Your task to perform on an android device: turn notification dots on Image 0: 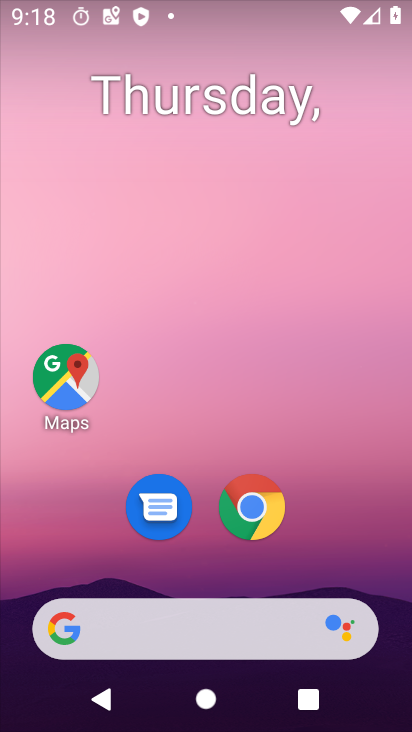
Step 0: drag from (199, 589) to (238, 7)
Your task to perform on an android device: turn notification dots on Image 1: 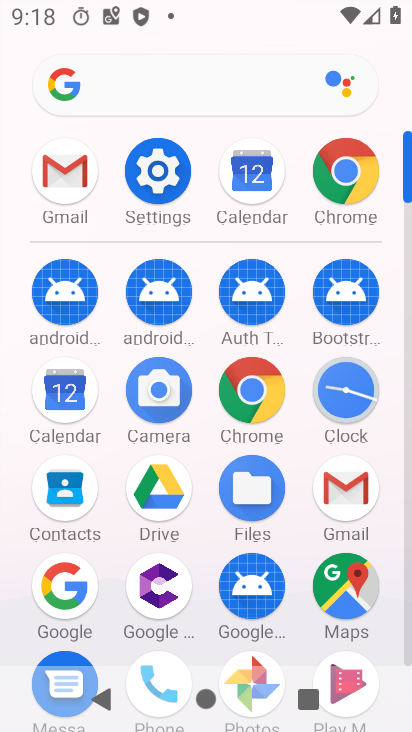
Step 1: click (143, 192)
Your task to perform on an android device: turn notification dots on Image 2: 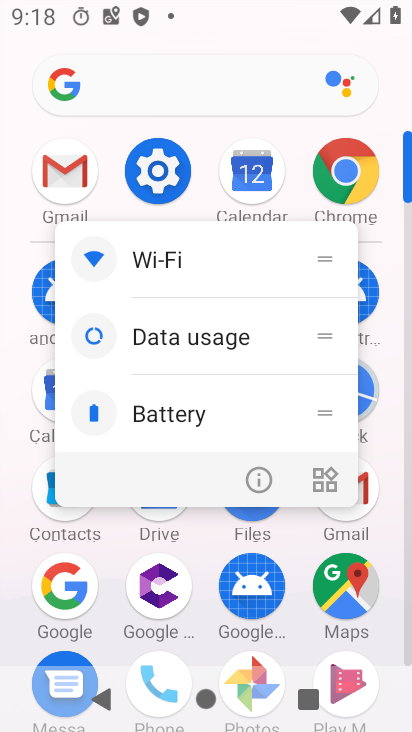
Step 2: click (174, 180)
Your task to perform on an android device: turn notification dots on Image 3: 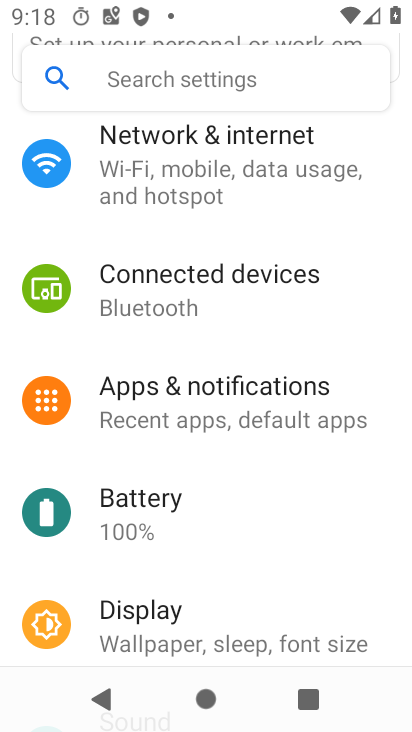
Step 3: click (212, 388)
Your task to perform on an android device: turn notification dots on Image 4: 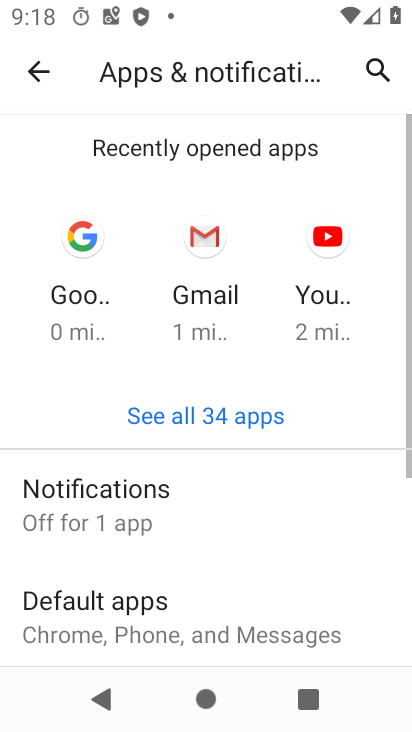
Step 4: drag from (195, 527) to (232, 188)
Your task to perform on an android device: turn notification dots on Image 5: 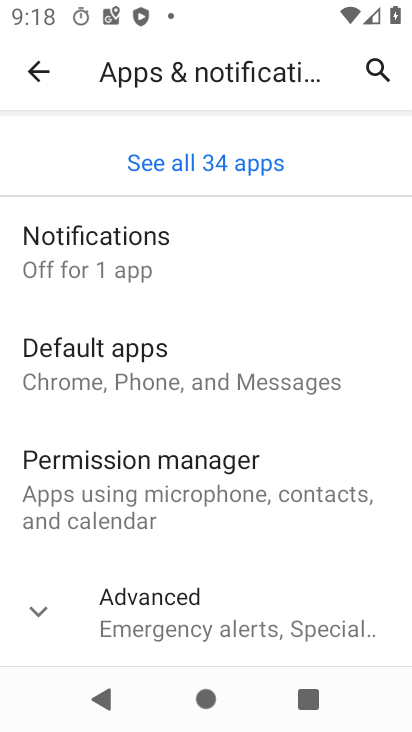
Step 5: click (127, 274)
Your task to perform on an android device: turn notification dots on Image 6: 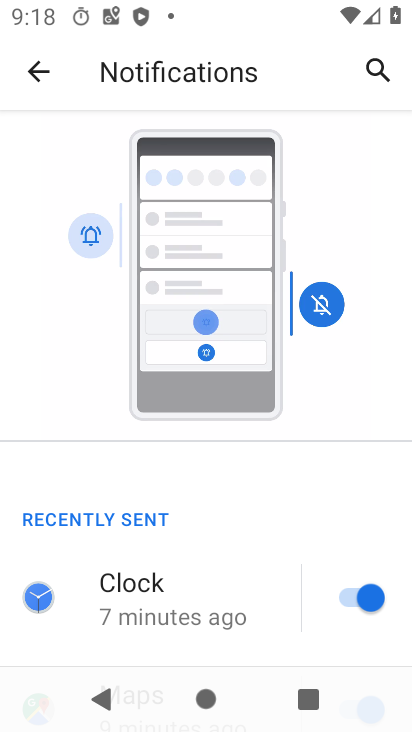
Step 6: drag from (252, 535) to (252, 191)
Your task to perform on an android device: turn notification dots on Image 7: 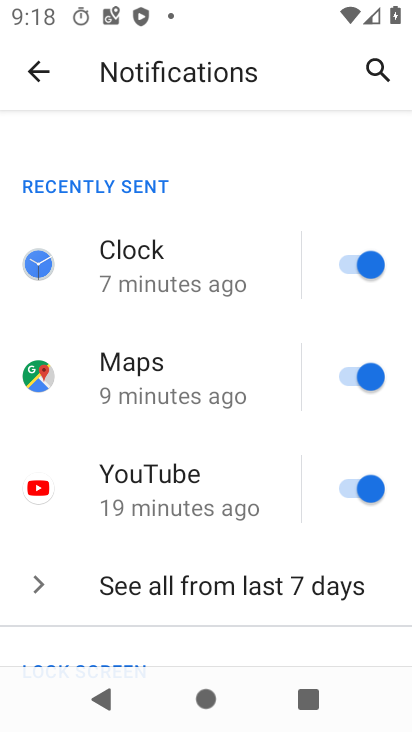
Step 7: drag from (186, 455) to (246, 8)
Your task to perform on an android device: turn notification dots on Image 8: 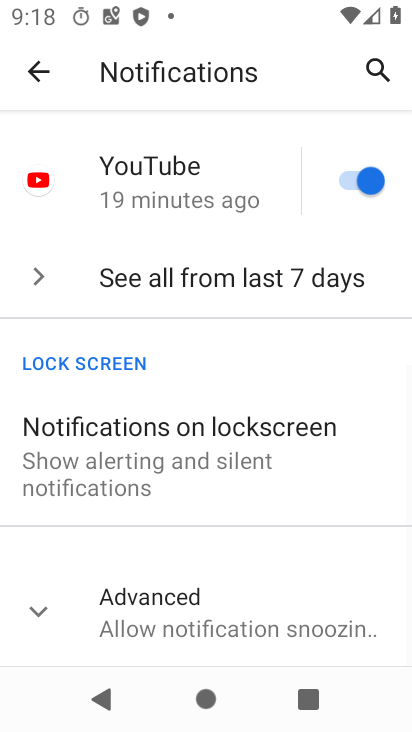
Step 8: click (199, 616)
Your task to perform on an android device: turn notification dots on Image 9: 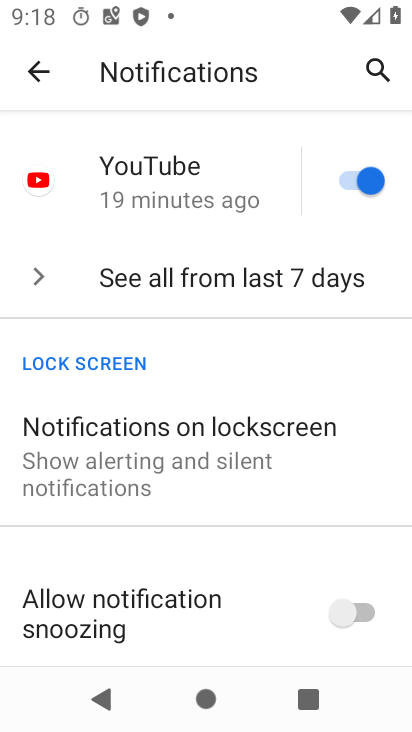
Step 9: drag from (206, 611) to (265, 217)
Your task to perform on an android device: turn notification dots on Image 10: 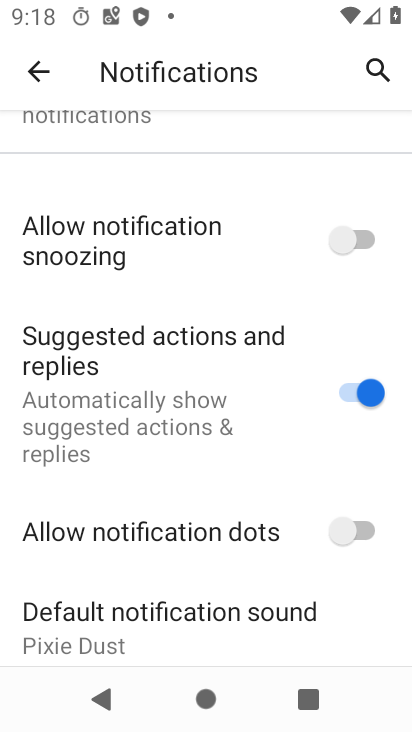
Step 10: drag from (210, 551) to (219, 503)
Your task to perform on an android device: turn notification dots on Image 11: 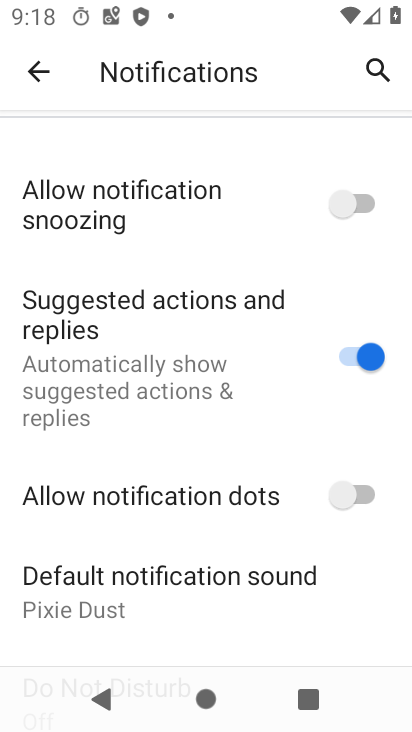
Step 11: click (370, 492)
Your task to perform on an android device: turn notification dots on Image 12: 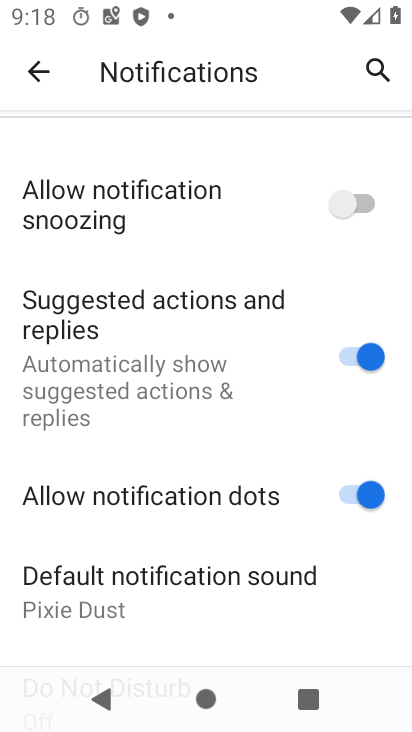
Step 12: task complete